Your task to perform on an android device: turn off javascript in the chrome app Image 0: 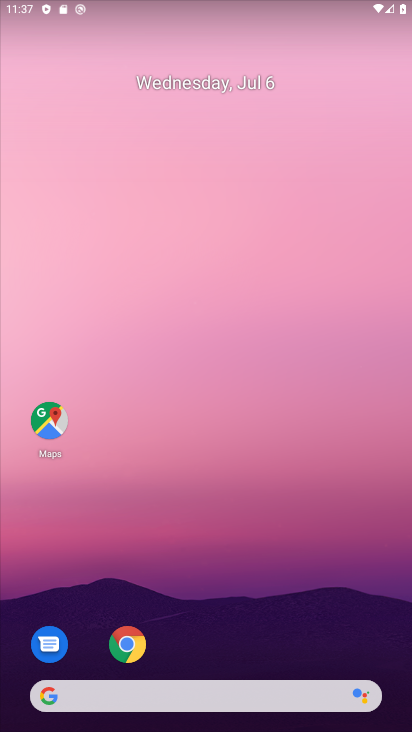
Step 0: drag from (243, 683) to (190, 258)
Your task to perform on an android device: turn off javascript in the chrome app Image 1: 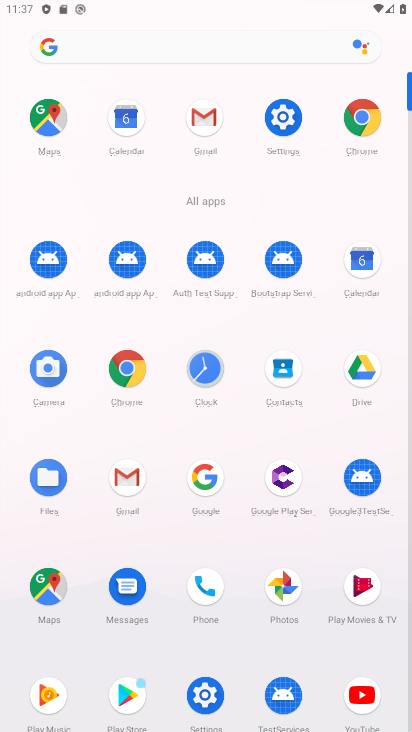
Step 1: click (374, 128)
Your task to perform on an android device: turn off javascript in the chrome app Image 2: 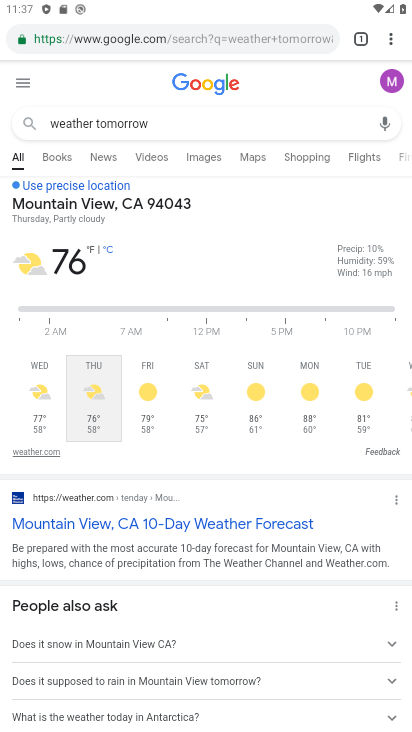
Step 2: drag from (390, 37) to (276, 443)
Your task to perform on an android device: turn off javascript in the chrome app Image 3: 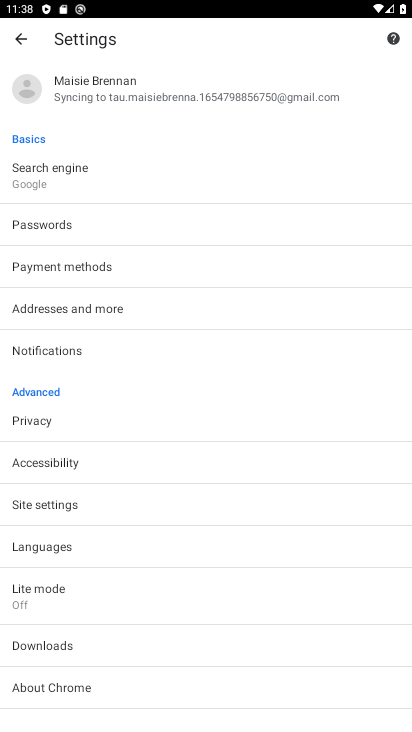
Step 3: click (90, 510)
Your task to perform on an android device: turn off javascript in the chrome app Image 4: 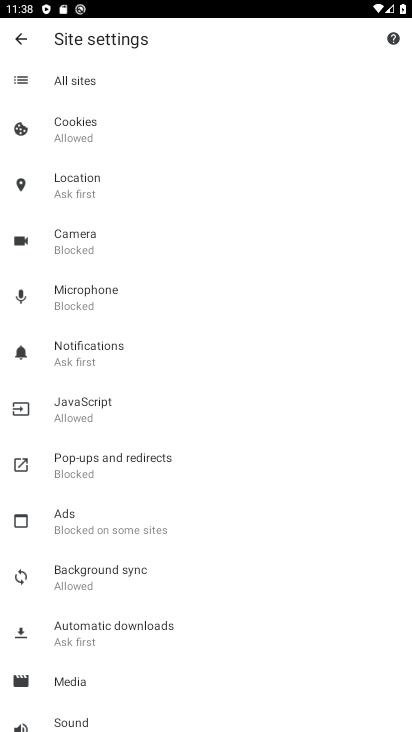
Step 4: click (131, 401)
Your task to perform on an android device: turn off javascript in the chrome app Image 5: 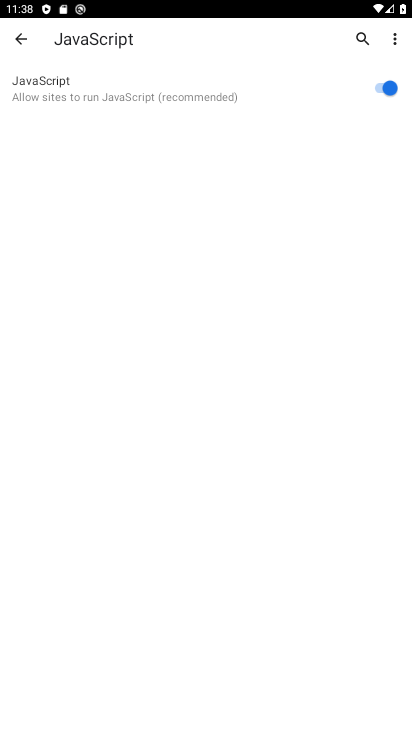
Step 5: click (390, 88)
Your task to perform on an android device: turn off javascript in the chrome app Image 6: 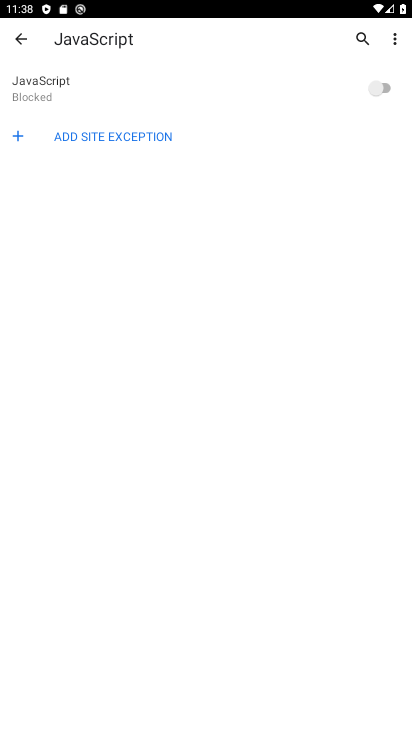
Step 6: task complete